Your task to perform on an android device: allow notifications from all sites in the chrome app Image 0: 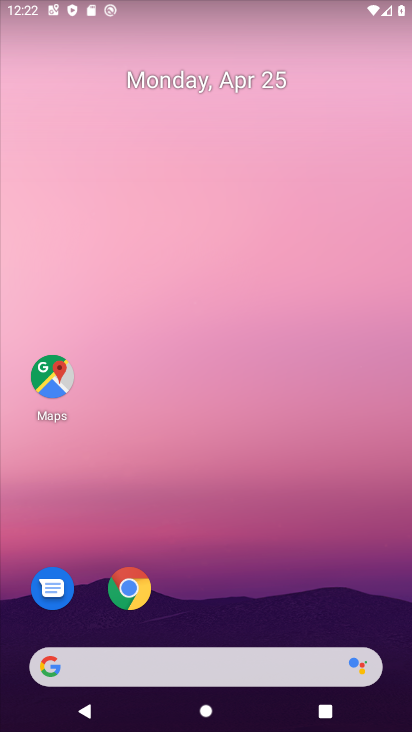
Step 0: click (141, 593)
Your task to perform on an android device: allow notifications from all sites in the chrome app Image 1: 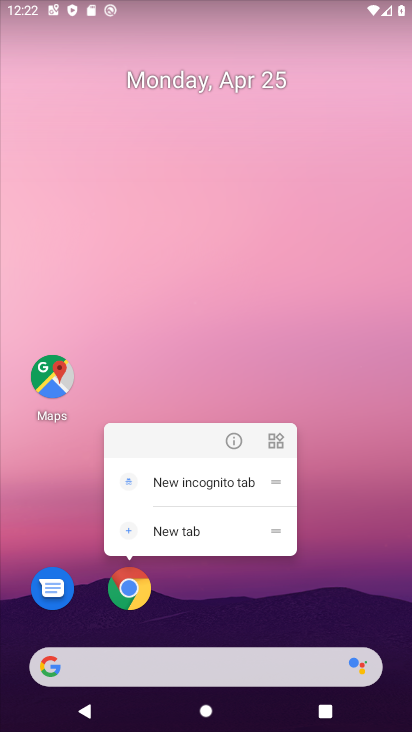
Step 1: click (135, 584)
Your task to perform on an android device: allow notifications from all sites in the chrome app Image 2: 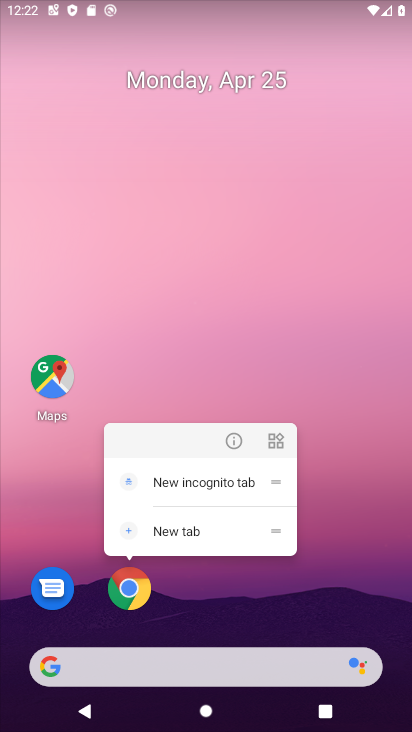
Step 2: click (127, 595)
Your task to perform on an android device: allow notifications from all sites in the chrome app Image 3: 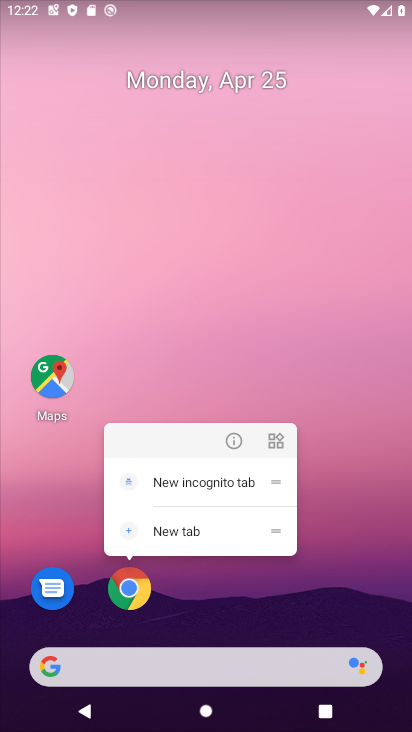
Step 3: click (134, 597)
Your task to perform on an android device: allow notifications from all sites in the chrome app Image 4: 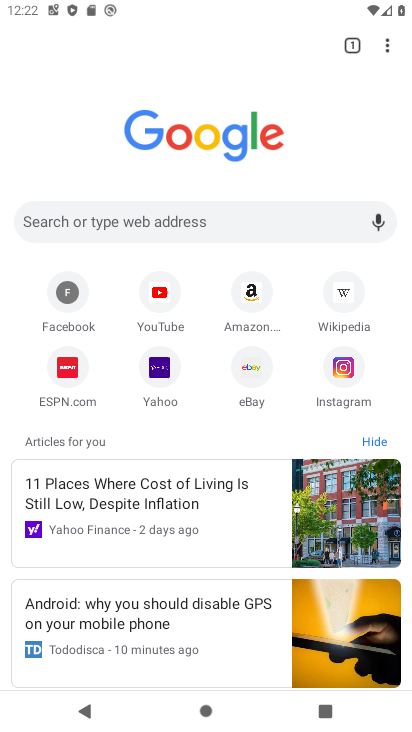
Step 4: drag from (386, 43) to (270, 375)
Your task to perform on an android device: allow notifications from all sites in the chrome app Image 5: 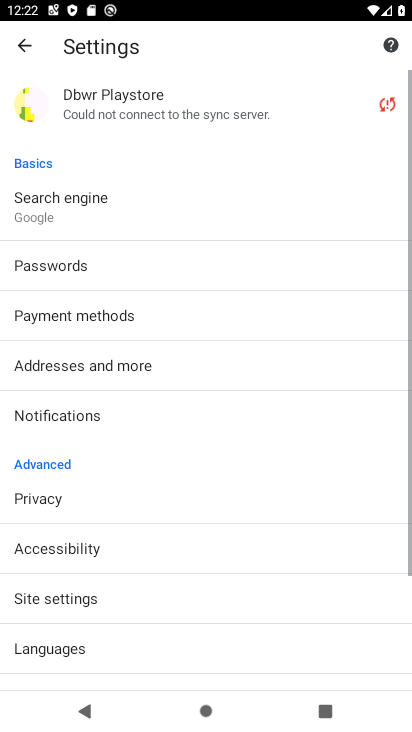
Step 5: drag from (185, 618) to (294, 213)
Your task to perform on an android device: allow notifications from all sites in the chrome app Image 6: 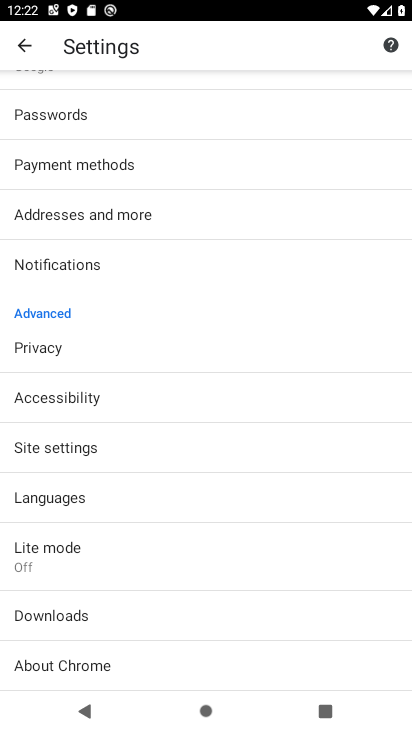
Step 6: click (157, 444)
Your task to perform on an android device: allow notifications from all sites in the chrome app Image 7: 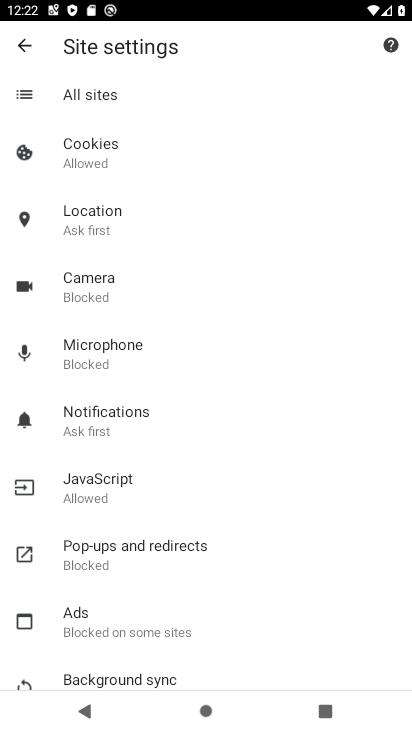
Step 7: click (148, 417)
Your task to perform on an android device: allow notifications from all sites in the chrome app Image 8: 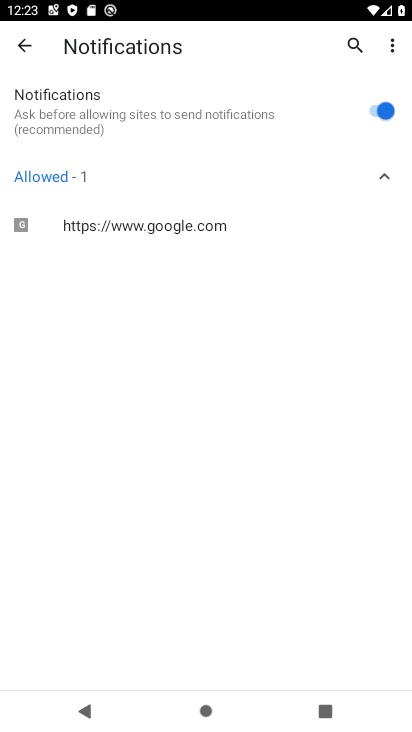
Step 8: click (213, 231)
Your task to perform on an android device: allow notifications from all sites in the chrome app Image 9: 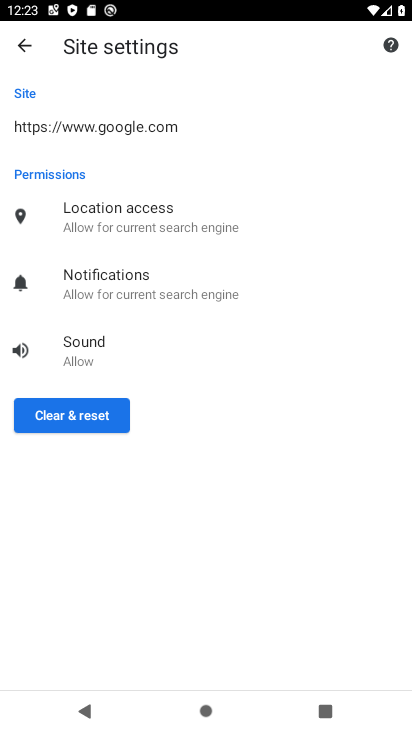
Step 9: click (166, 138)
Your task to perform on an android device: allow notifications from all sites in the chrome app Image 10: 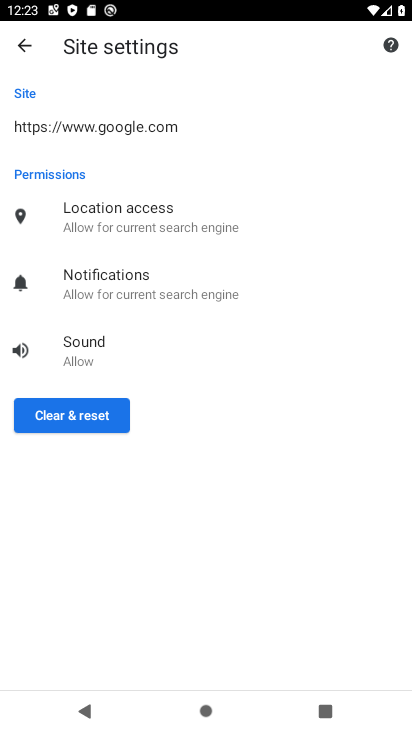
Step 10: task complete